Your task to perform on an android device: open device folders in google photos Image 0: 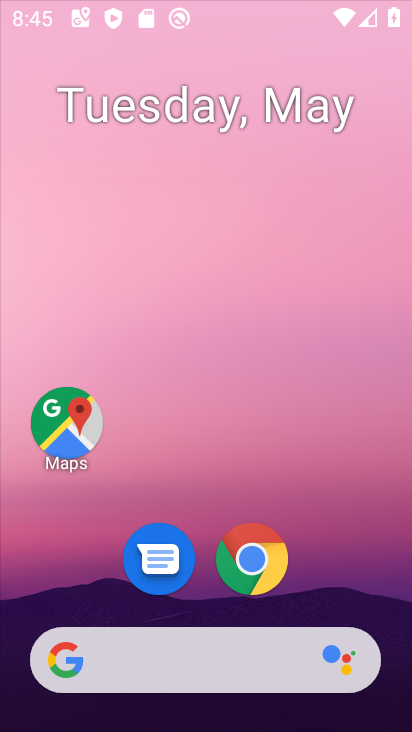
Step 0: drag from (359, 474) to (336, 270)
Your task to perform on an android device: open device folders in google photos Image 1: 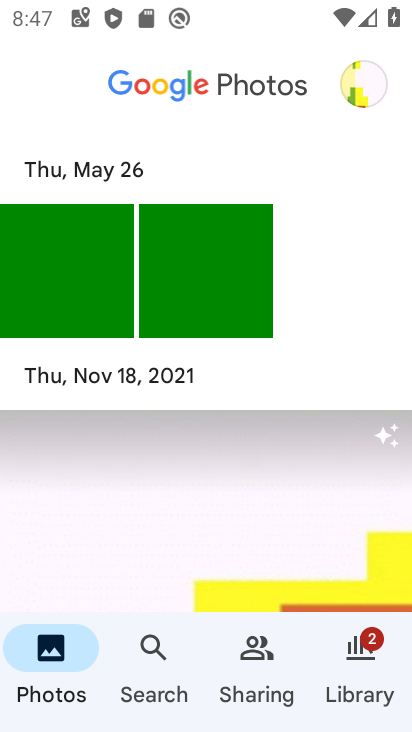
Step 1: task complete